Your task to perform on an android device: Open Google Maps Image 0: 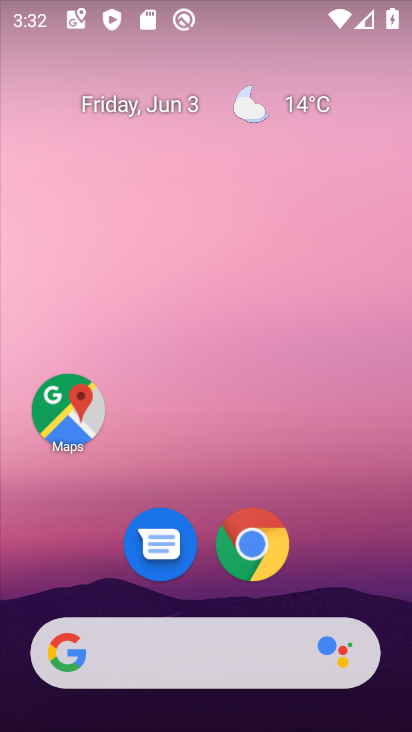
Step 0: click (64, 406)
Your task to perform on an android device: Open Google Maps Image 1: 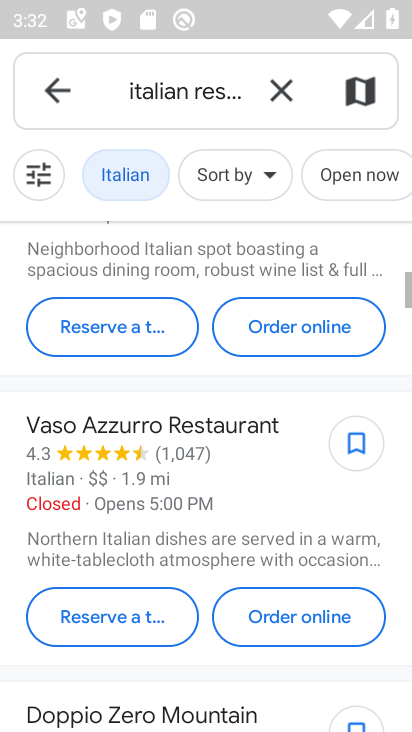
Step 1: click (271, 96)
Your task to perform on an android device: Open Google Maps Image 2: 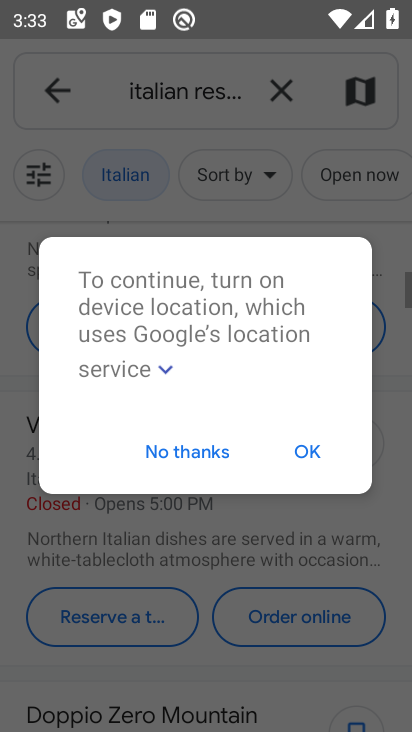
Step 2: click (316, 439)
Your task to perform on an android device: Open Google Maps Image 3: 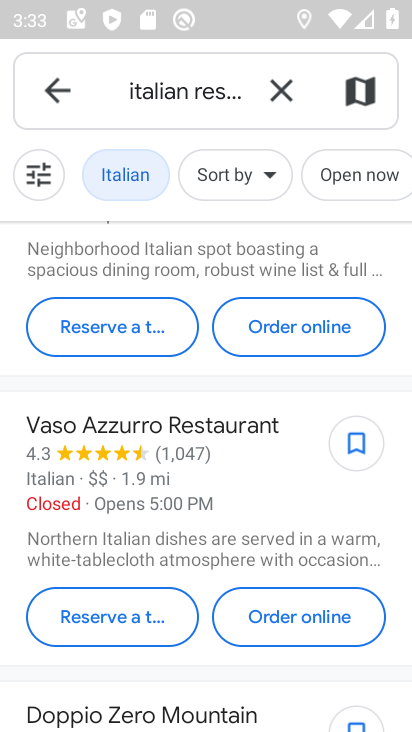
Step 3: click (278, 92)
Your task to perform on an android device: Open Google Maps Image 4: 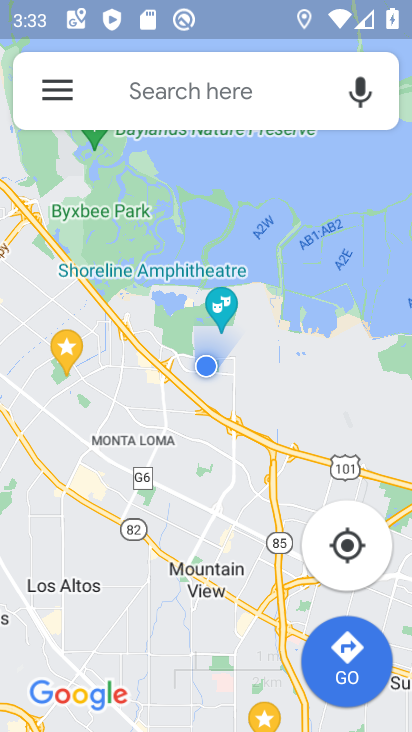
Step 4: task complete